Your task to perform on an android device: install app "Spotify" Image 0: 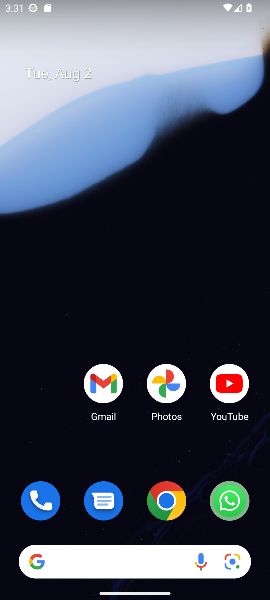
Step 0: drag from (148, 472) to (92, 99)
Your task to perform on an android device: install app "Spotify" Image 1: 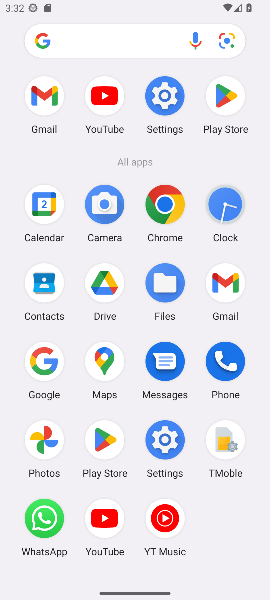
Step 1: click (113, 450)
Your task to perform on an android device: install app "Spotify" Image 2: 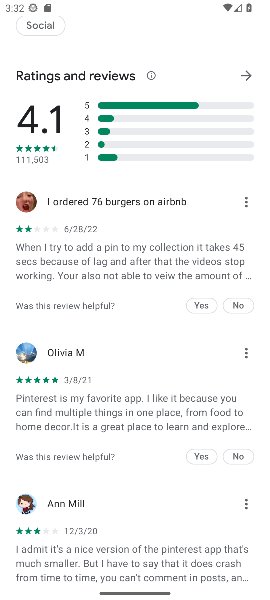
Step 2: drag from (178, 241) to (218, 507)
Your task to perform on an android device: install app "Spotify" Image 3: 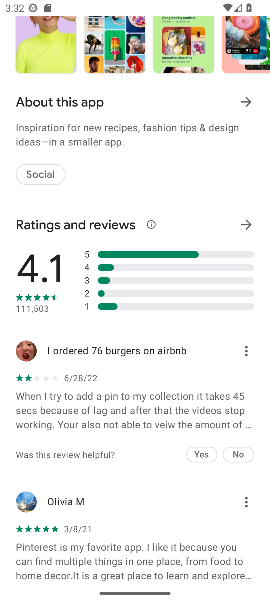
Step 3: drag from (227, 33) to (231, 550)
Your task to perform on an android device: install app "Spotify" Image 4: 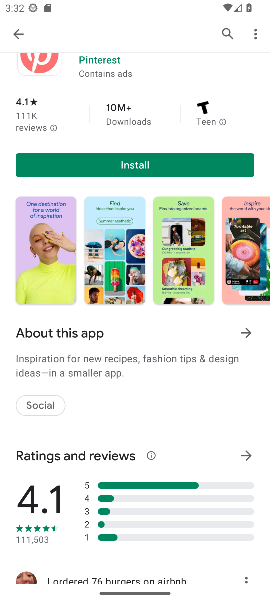
Step 4: click (229, 33)
Your task to perform on an android device: install app "Spotify" Image 5: 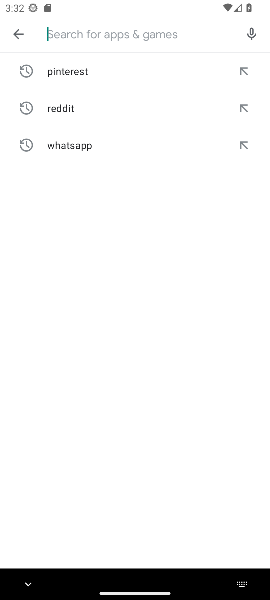
Step 5: type "spotify"
Your task to perform on an android device: install app "Spotify" Image 6: 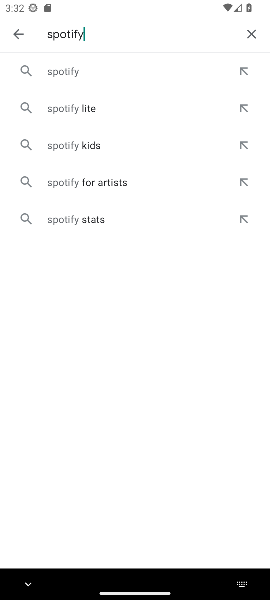
Step 6: click (136, 64)
Your task to perform on an android device: install app "Spotify" Image 7: 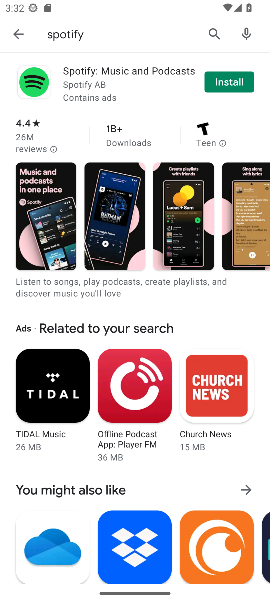
Step 7: click (224, 84)
Your task to perform on an android device: install app "Spotify" Image 8: 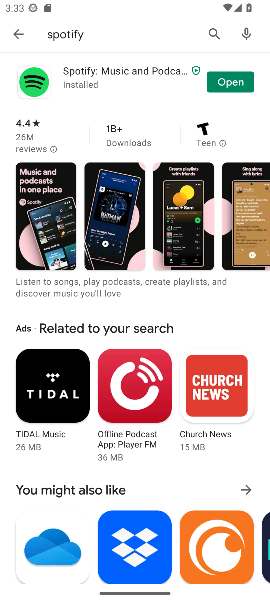
Step 8: task complete